Your task to perform on an android device: Open maps Image 0: 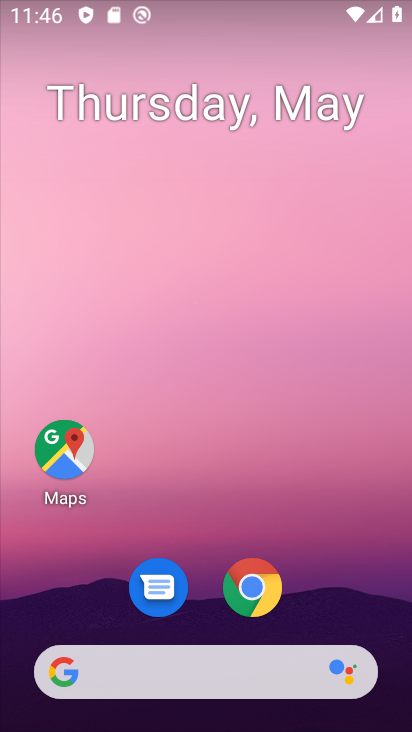
Step 0: click (61, 445)
Your task to perform on an android device: Open maps Image 1: 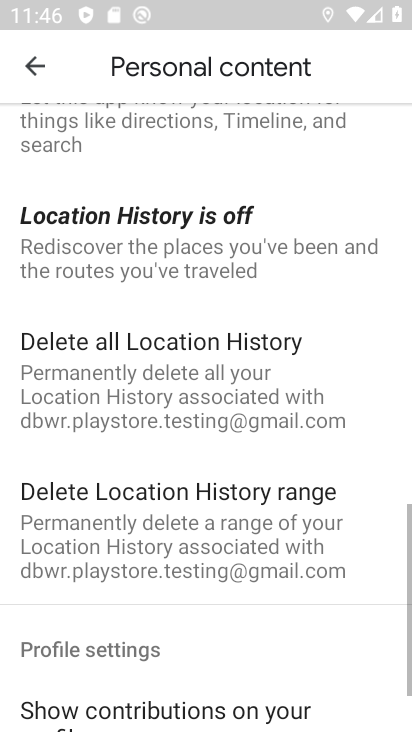
Step 1: click (35, 75)
Your task to perform on an android device: Open maps Image 2: 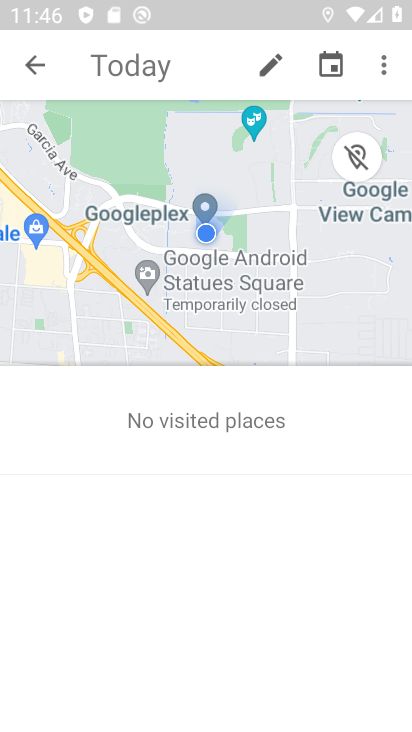
Step 2: click (51, 55)
Your task to perform on an android device: Open maps Image 3: 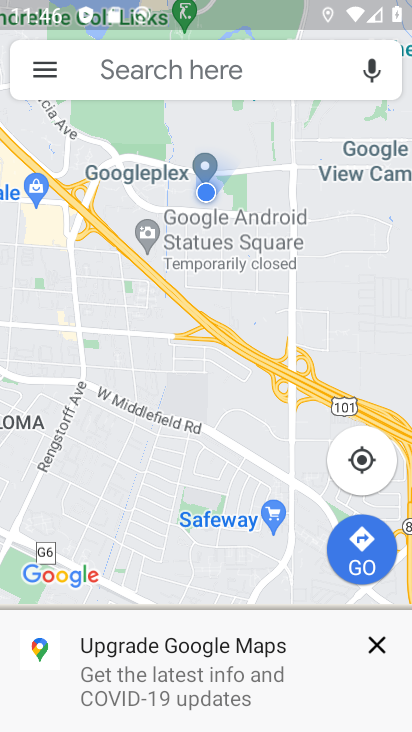
Step 3: task complete